Your task to perform on an android device: add a contact in the contacts app Image 0: 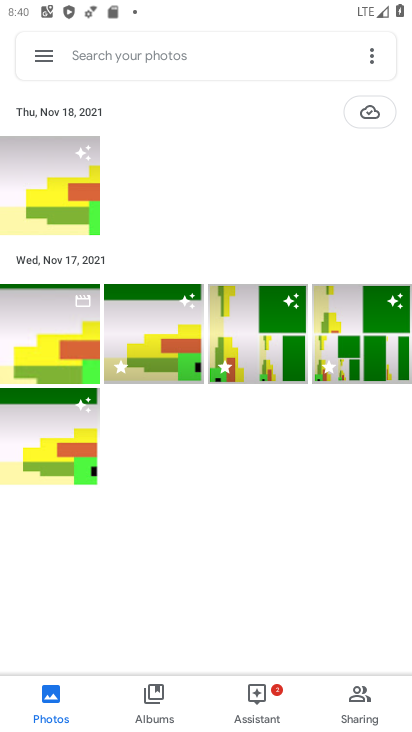
Step 0: press home button
Your task to perform on an android device: add a contact in the contacts app Image 1: 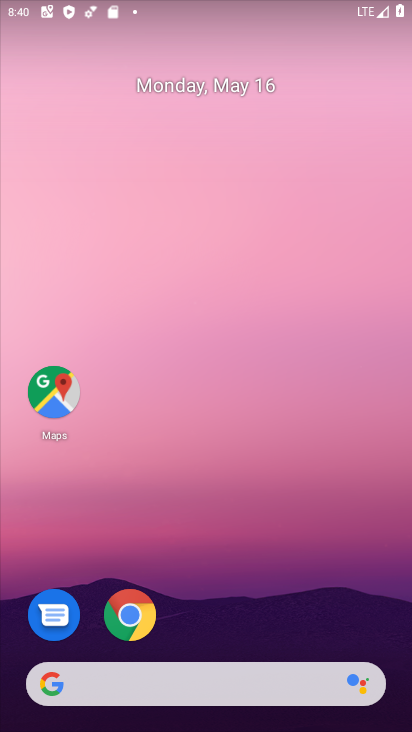
Step 1: drag from (316, 648) to (298, 393)
Your task to perform on an android device: add a contact in the contacts app Image 2: 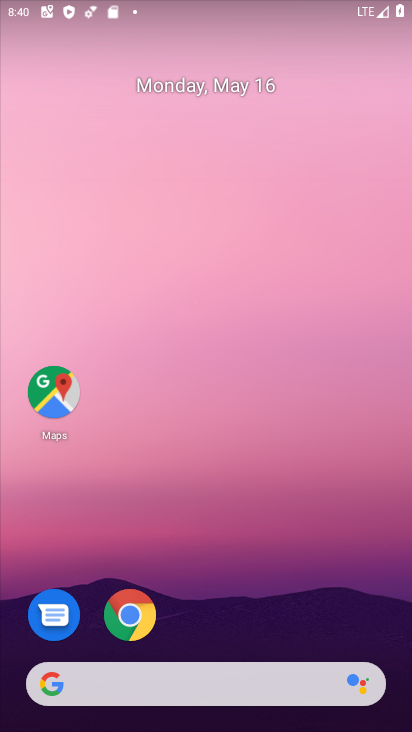
Step 2: drag from (263, 511) to (254, 182)
Your task to perform on an android device: add a contact in the contacts app Image 3: 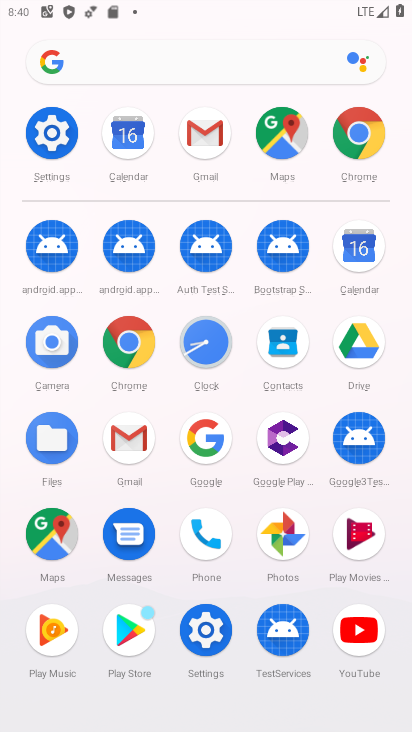
Step 3: click (278, 353)
Your task to perform on an android device: add a contact in the contacts app Image 4: 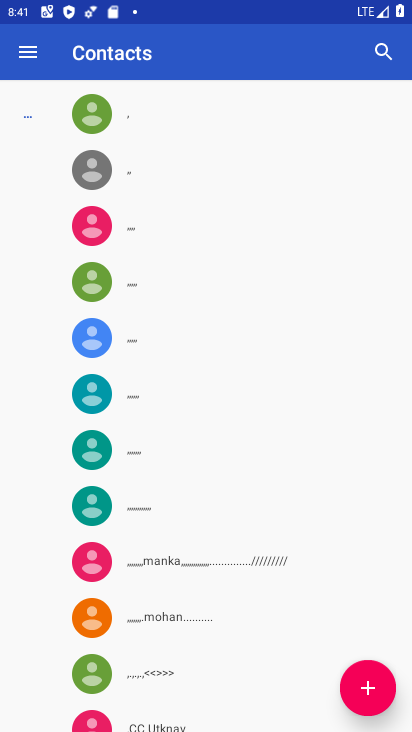
Step 4: click (359, 689)
Your task to perform on an android device: add a contact in the contacts app Image 5: 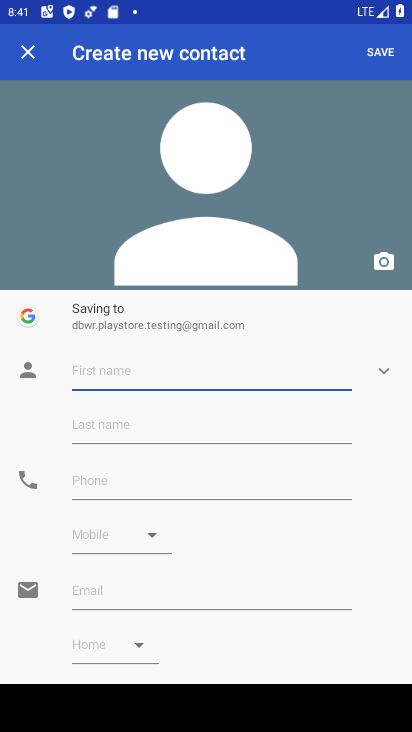
Step 5: type "buiii"
Your task to perform on an android device: add a contact in the contacts app Image 6: 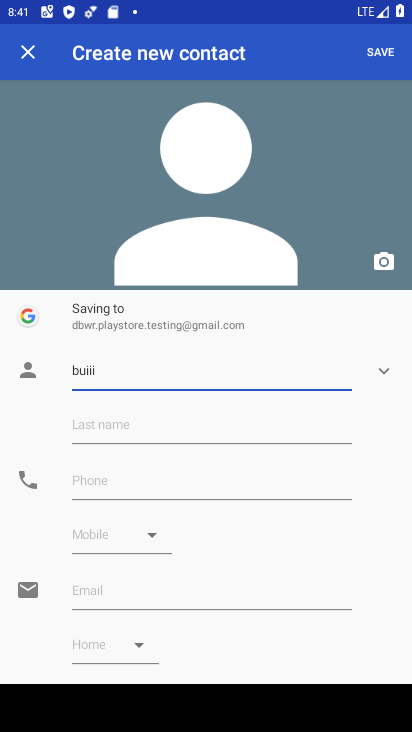
Step 6: click (137, 478)
Your task to perform on an android device: add a contact in the contacts app Image 7: 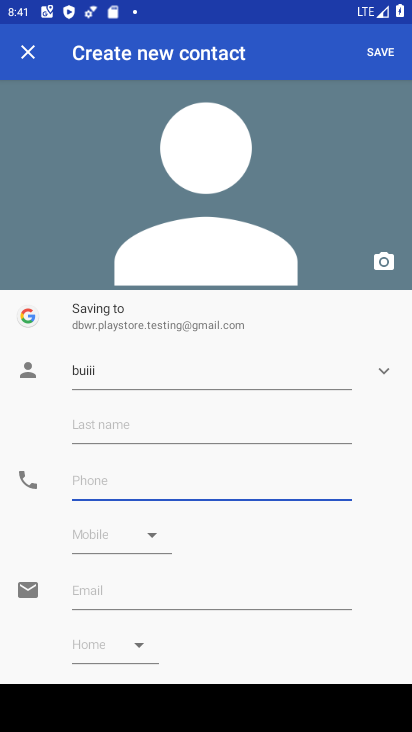
Step 7: type "445455554"
Your task to perform on an android device: add a contact in the contacts app Image 8: 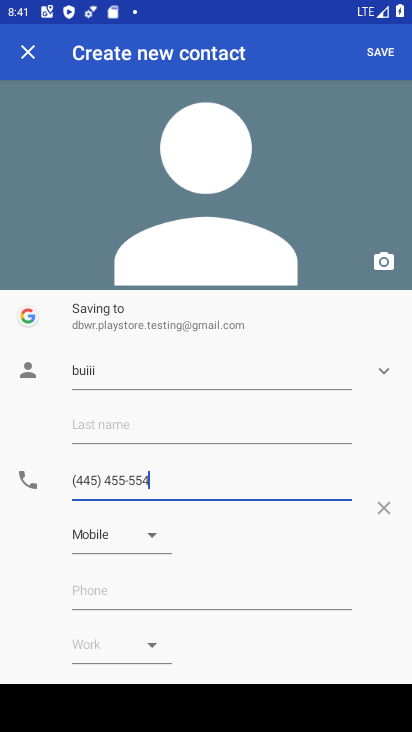
Step 8: click (373, 48)
Your task to perform on an android device: add a contact in the contacts app Image 9: 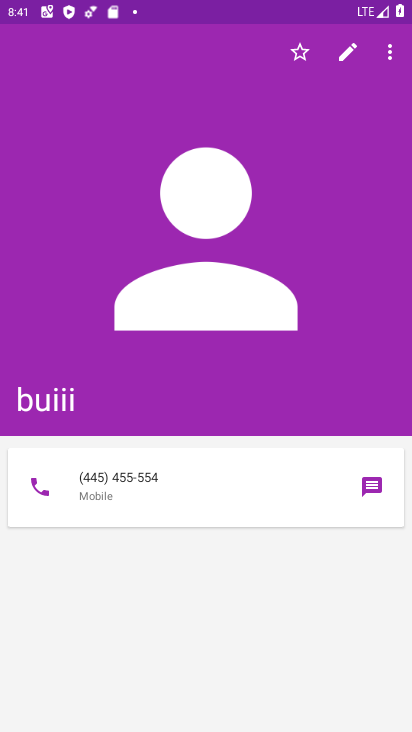
Step 9: task complete